Your task to perform on an android device: allow notifications from all sites in the chrome app Image 0: 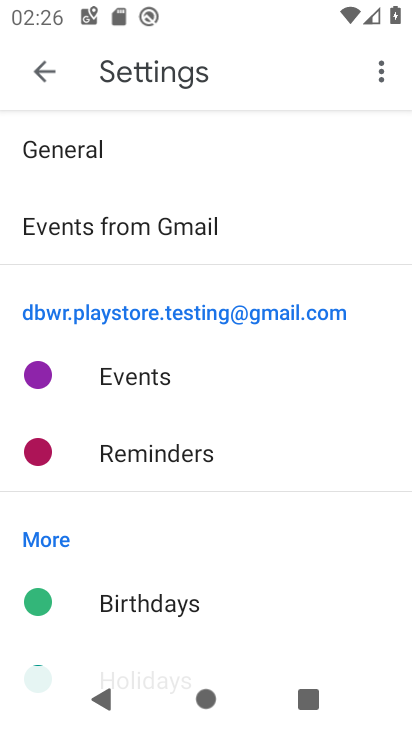
Step 0: press home button
Your task to perform on an android device: allow notifications from all sites in the chrome app Image 1: 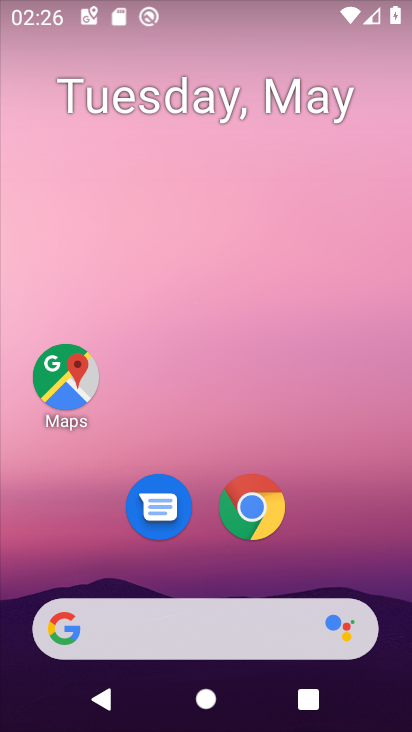
Step 1: click (250, 511)
Your task to perform on an android device: allow notifications from all sites in the chrome app Image 2: 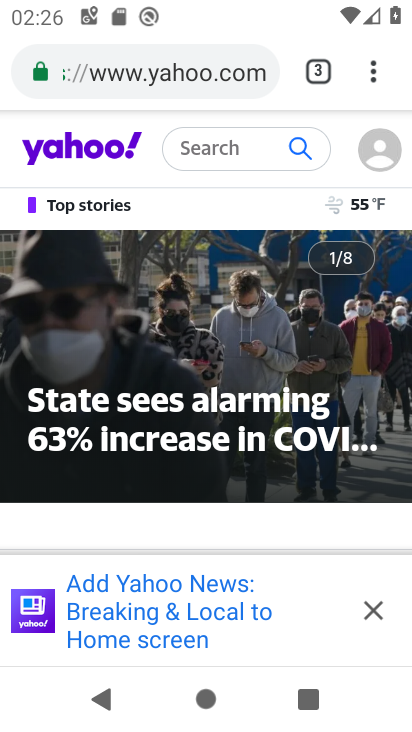
Step 2: drag from (375, 67) to (135, 502)
Your task to perform on an android device: allow notifications from all sites in the chrome app Image 3: 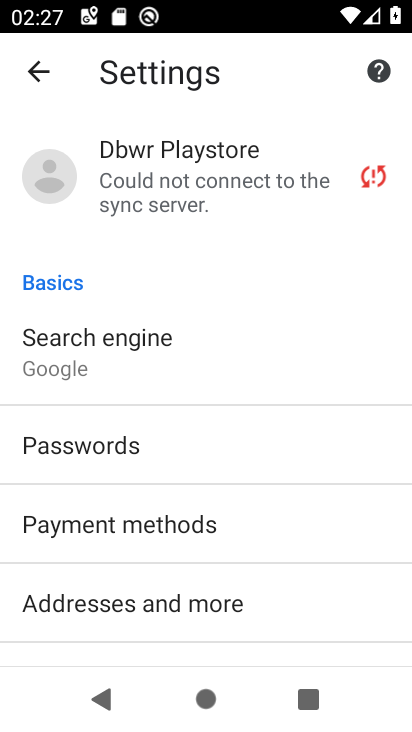
Step 3: drag from (254, 581) to (249, 214)
Your task to perform on an android device: allow notifications from all sites in the chrome app Image 4: 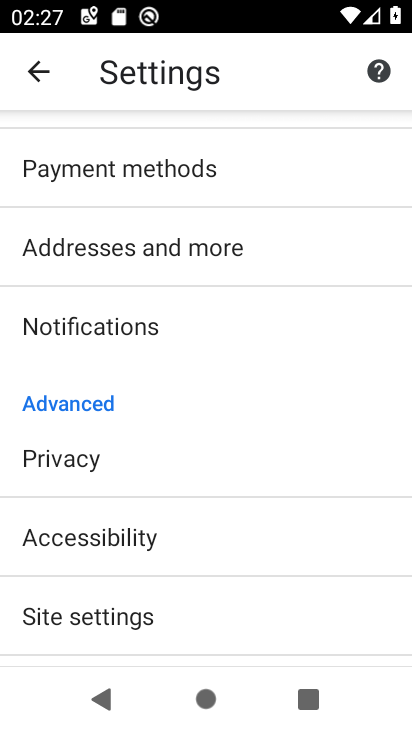
Step 4: drag from (227, 562) to (260, 413)
Your task to perform on an android device: allow notifications from all sites in the chrome app Image 5: 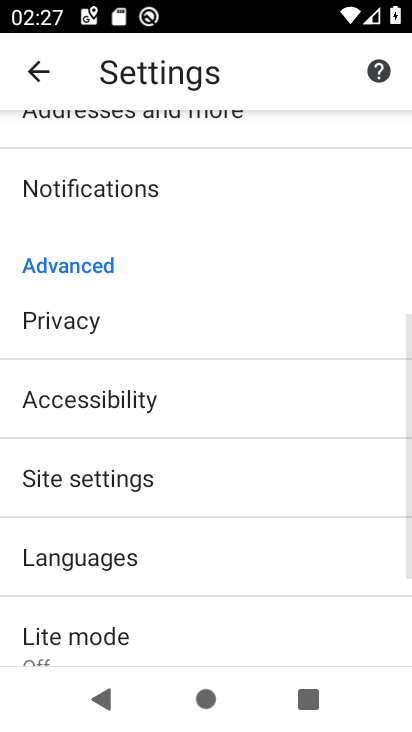
Step 5: click (229, 478)
Your task to perform on an android device: allow notifications from all sites in the chrome app Image 6: 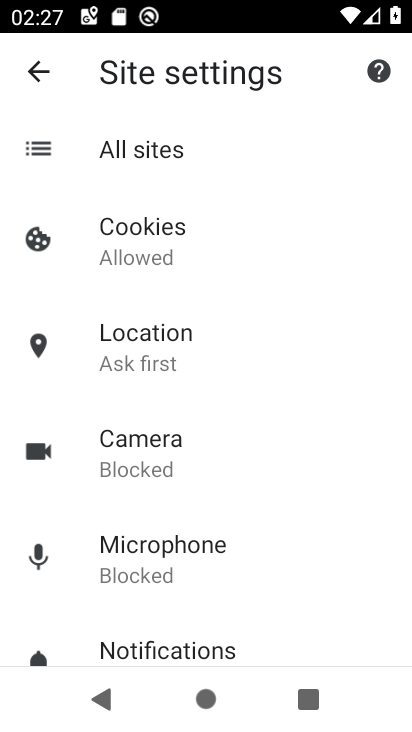
Step 6: click (162, 145)
Your task to perform on an android device: allow notifications from all sites in the chrome app Image 7: 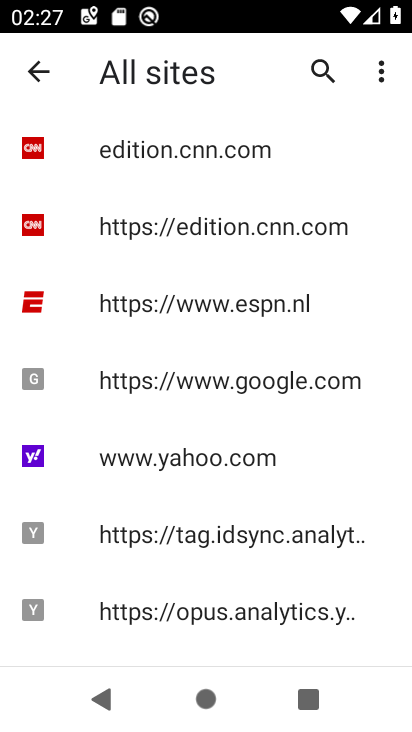
Step 7: click (212, 386)
Your task to perform on an android device: allow notifications from all sites in the chrome app Image 8: 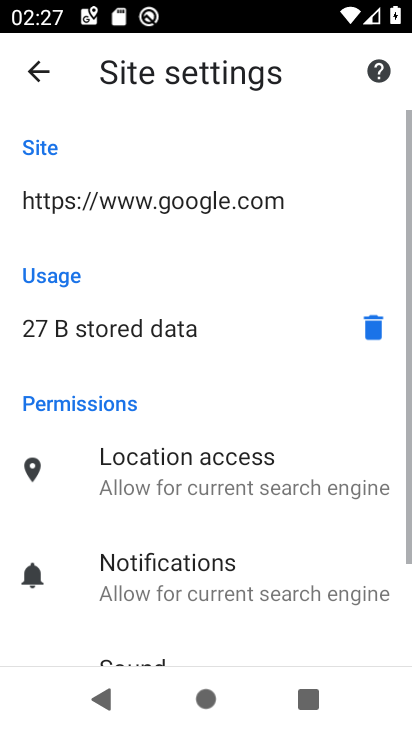
Step 8: drag from (224, 591) to (237, 380)
Your task to perform on an android device: allow notifications from all sites in the chrome app Image 9: 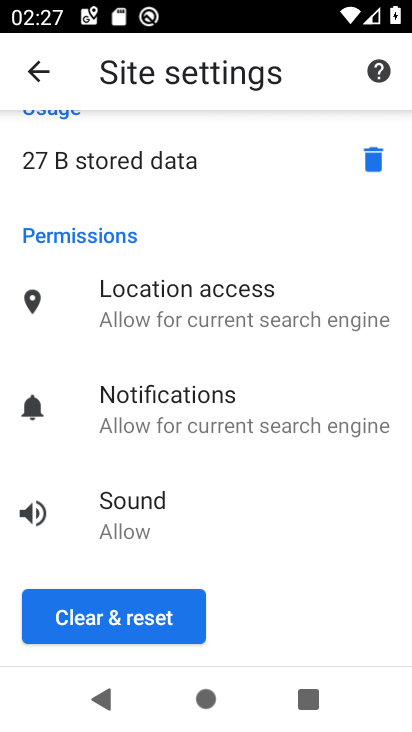
Step 9: click (237, 380)
Your task to perform on an android device: allow notifications from all sites in the chrome app Image 10: 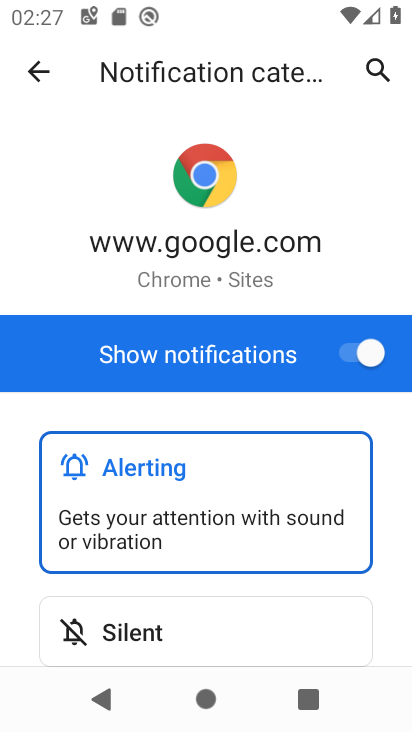
Step 10: task complete